Your task to perform on an android device: Add "duracell triple a" to the cart on bestbuy.com, then select checkout. Image 0: 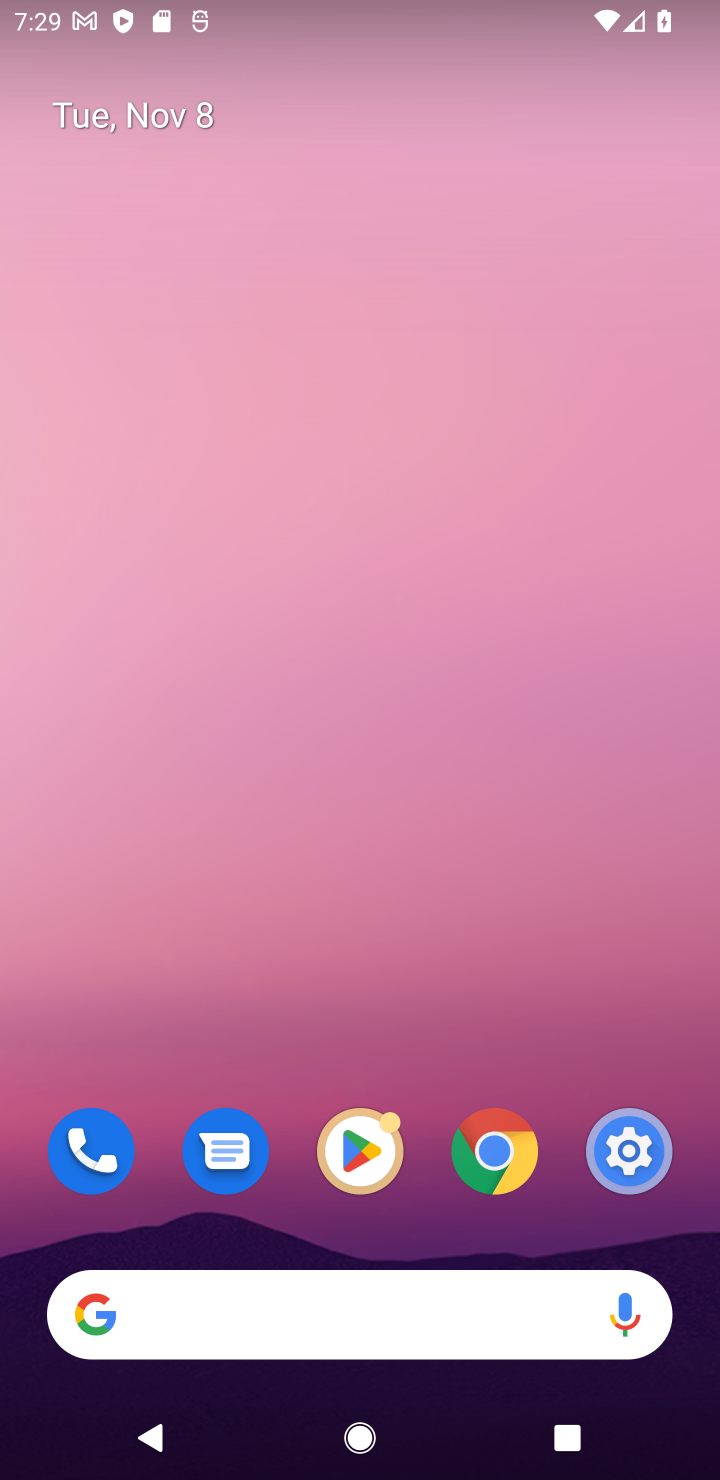
Step 0: click (519, 1312)
Your task to perform on an android device: Add "duracell triple a" to the cart on bestbuy.com, then select checkout. Image 1: 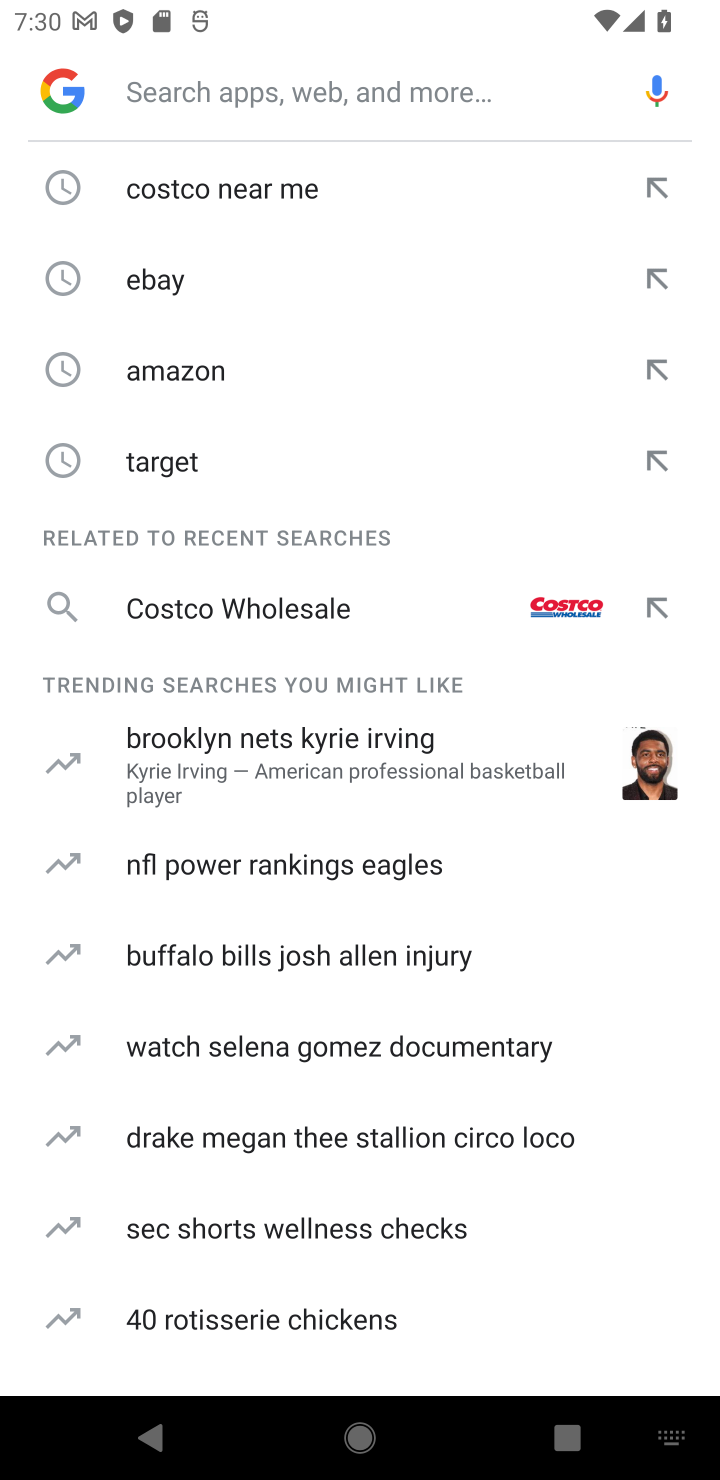
Step 1: type "bestbuy"
Your task to perform on an android device: Add "duracell triple a" to the cart on bestbuy.com, then select checkout. Image 2: 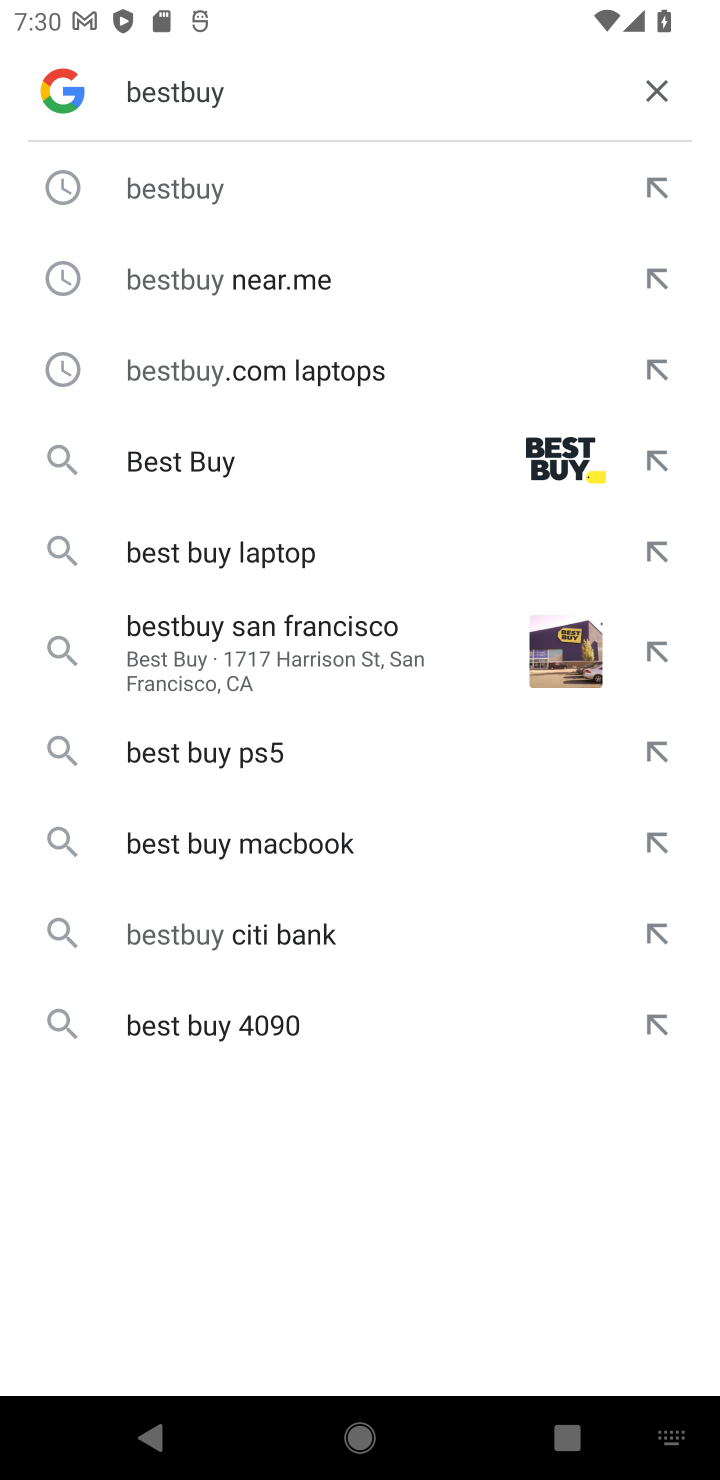
Step 2: click (229, 216)
Your task to perform on an android device: Add "duracell triple a" to the cart on bestbuy.com, then select checkout. Image 3: 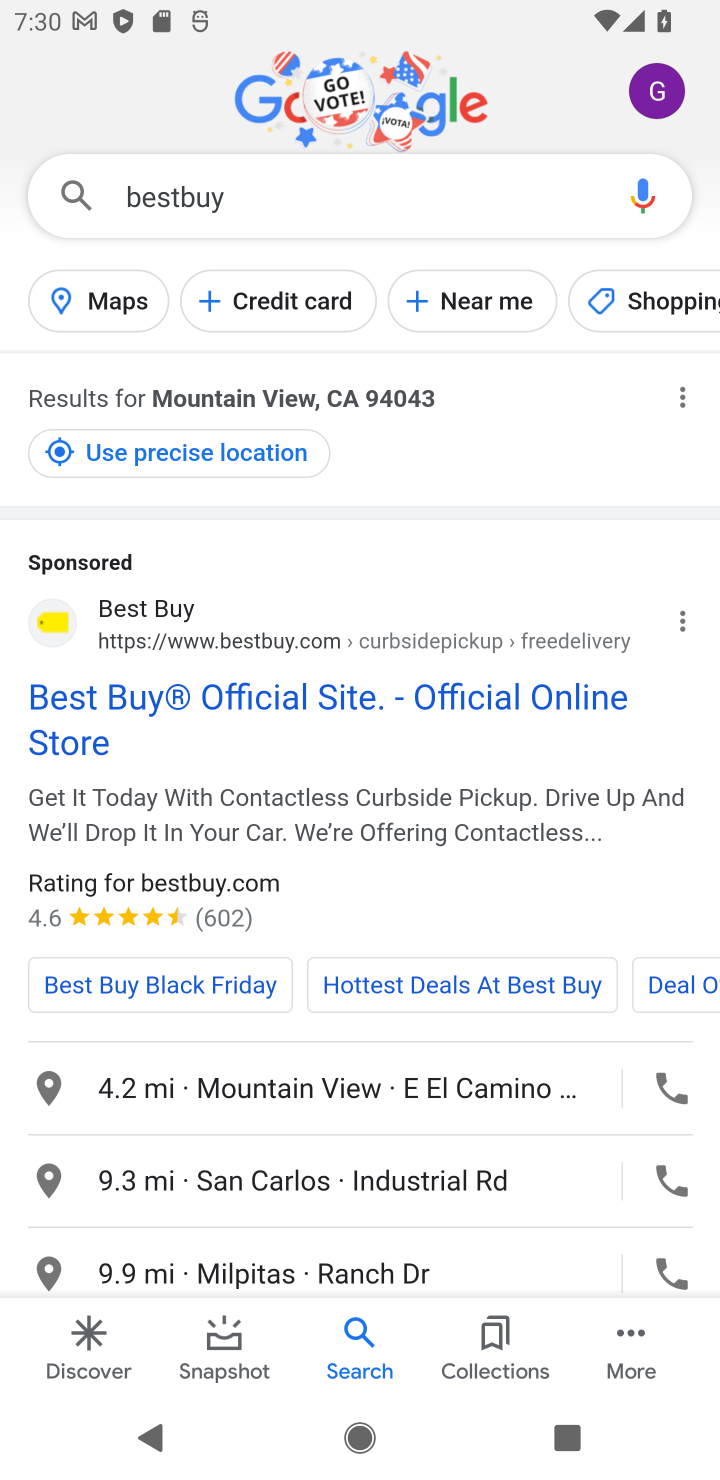
Step 3: click (244, 771)
Your task to perform on an android device: Add "duracell triple a" to the cart on bestbuy.com, then select checkout. Image 4: 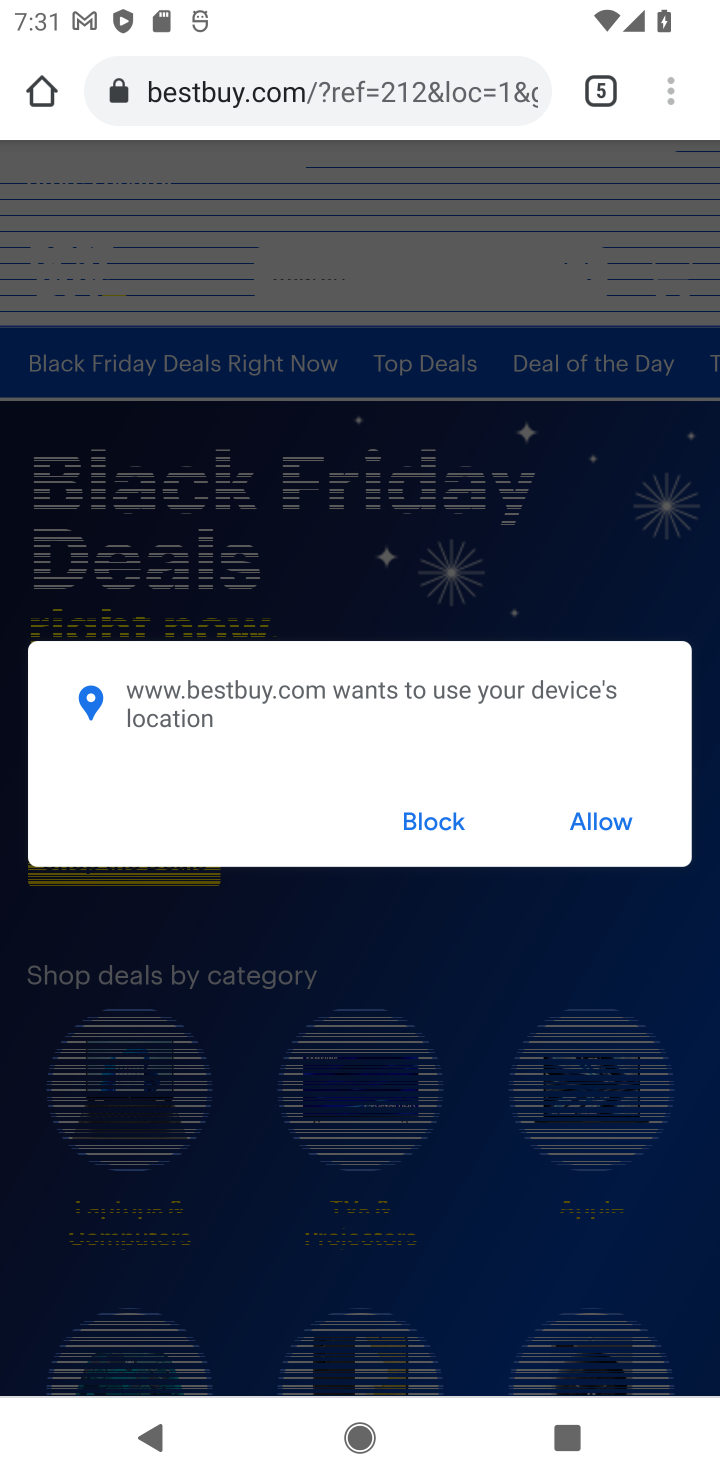
Step 4: task complete